Your task to perform on an android device: turn off sleep mode Image 0: 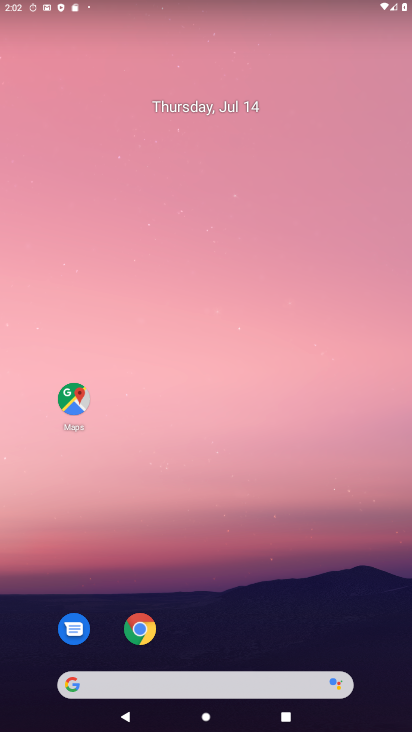
Step 0: drag from (200, 621) to (284, 1)
Your task to perform on an android device: turn off sleep mode Image 1: 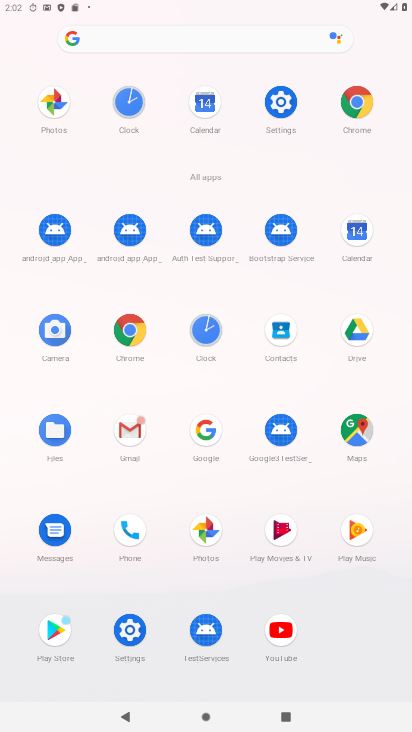
Step 1: click (280, 116)
Your task to perform on an android device: turn off sleep mode Image 2: 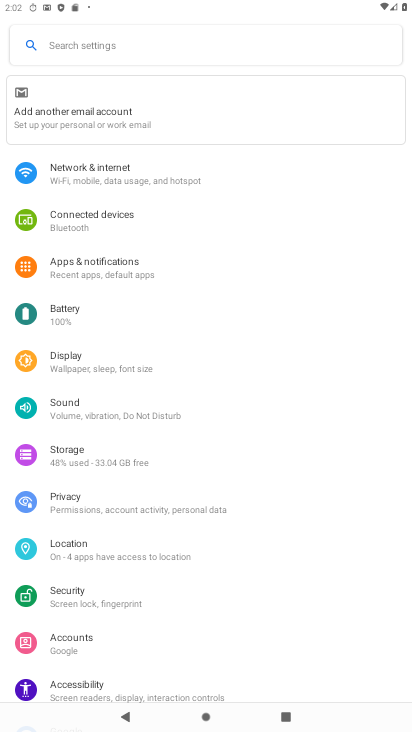
Step 2: click (204, 38)
Your task to perform on an android device: turn off sleep mode Image 3: 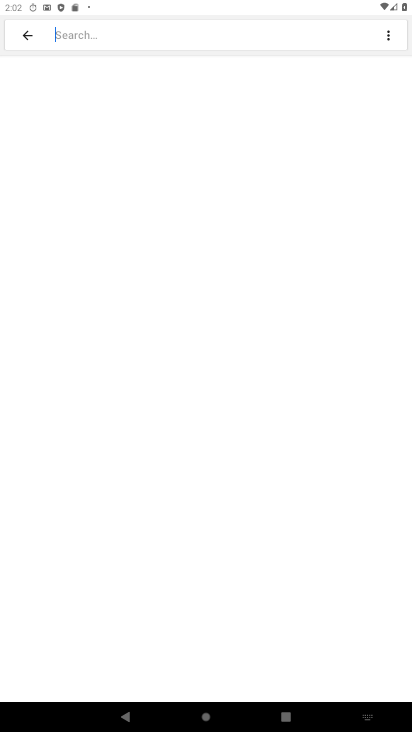
Step 3: type "sleep mode"
Your task to perform on an android device: turn off sleep mode Image 4: 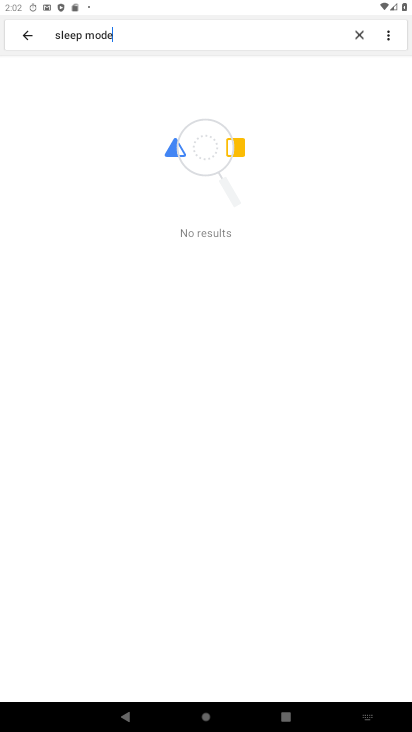
Step 4: click (174, 151)
Your task to perform on an android device: turn off sleep mode Image 5: 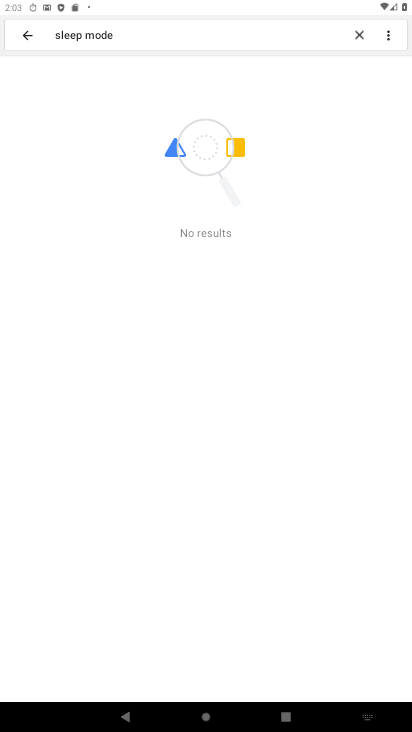
Step 5: task complete